Your task to perform on an android device: What's on my calendar tomorrow? Image 0: 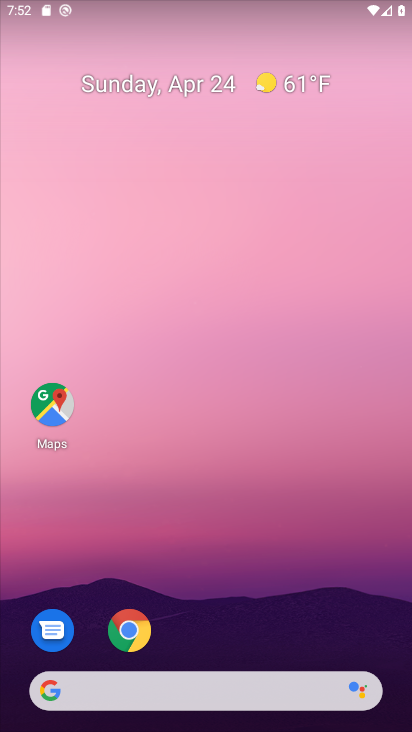
Step 0: drag from (374, 593) to (353, 75)
Your task to perform on an android device: What's on my calendar tomorrow? Image 1: 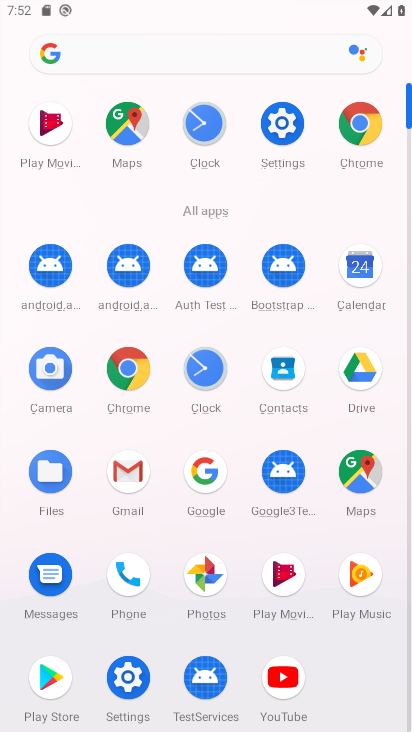
Step 1: click (369, 263)
Your task to perform on an android device: What's on my calendar tomorrow? Image 2: 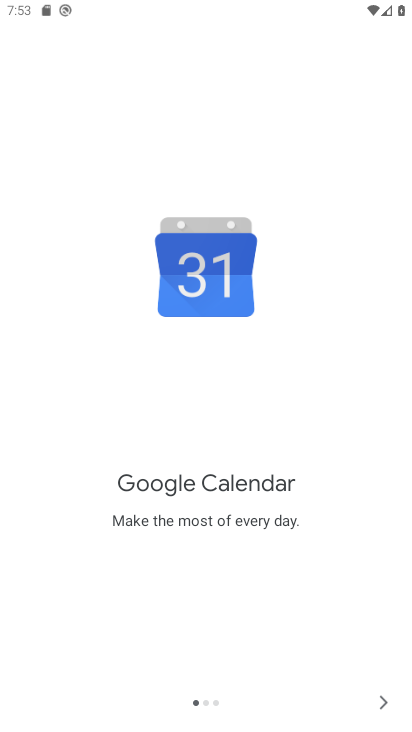
Step 2: click (372, 697)
Your task to perform on an android device: What's on my calendar tomorrow? Image 3: 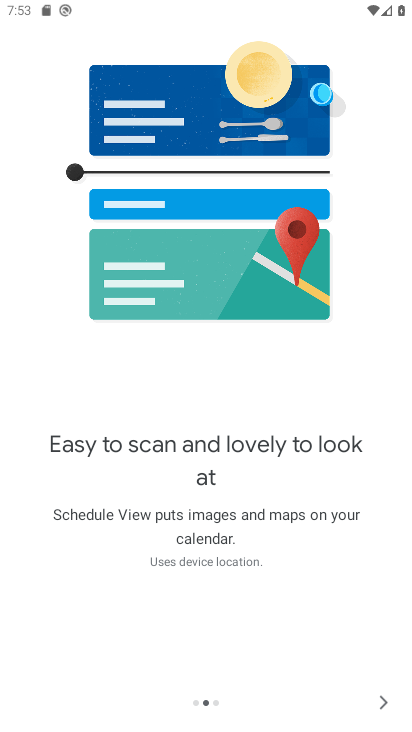
Step 3: click (372, 697)
Your task to perform on an android device: What's on my calendar tomorrow? Image 4: 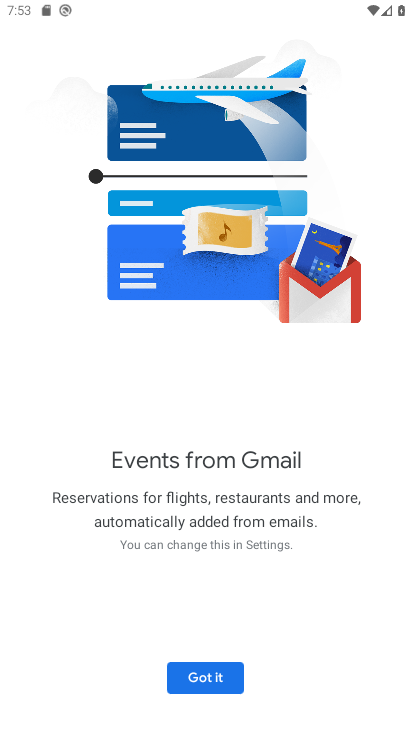
Step 4: click (243, 677)
Your task to perform on an android device: What's on my calendar tomorrow? Image 5: 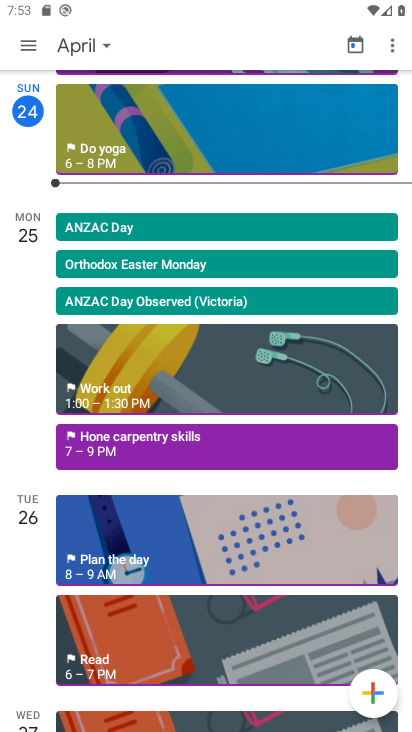
Step 5: click (218, 543)
Your task to perform on an android device: What's on my calendar tomorrow? Image 6: 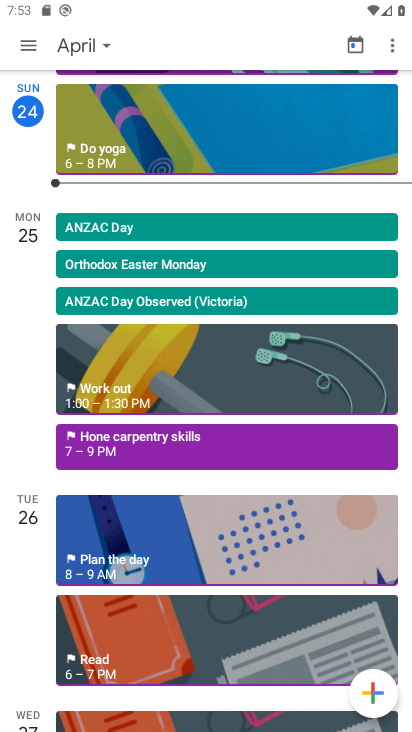
Step 6: click (218, 547)
Your task to perform on an android device: What's on my calendar tomorrow? Image 7: 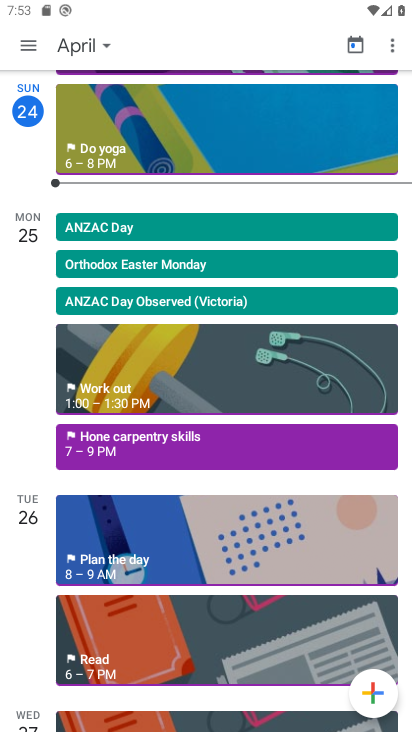
Step 7: drag from (236, 576) to (286, 267)
Your task to perform on an android device: What's on my calendar tomorrow? Image 8: 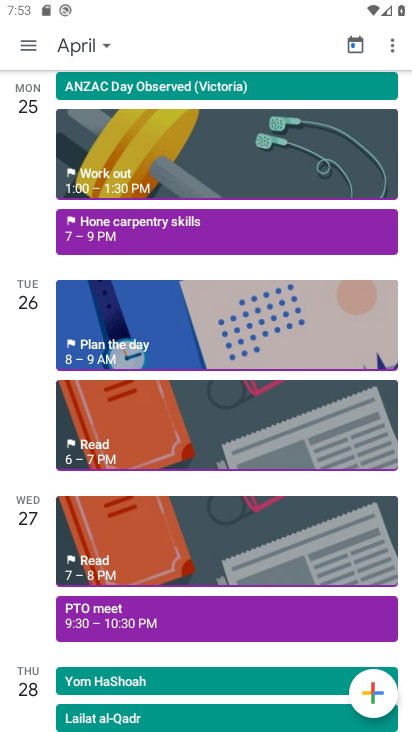
Step 8: click (274, 422)
Your task to perform on an android device: What's on my calendar tomorrow? Image 9: 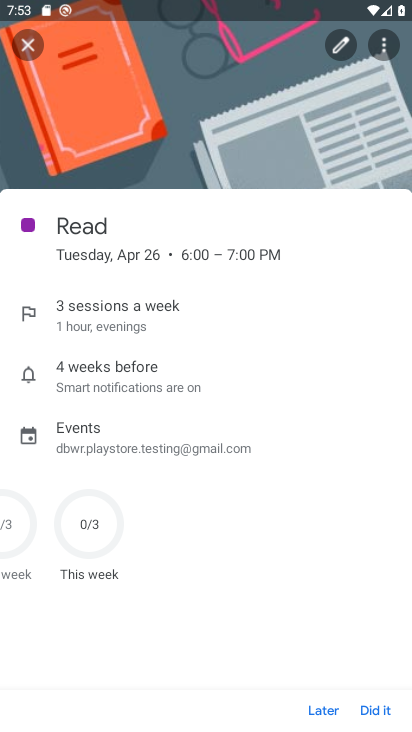
Step 9: task complete